Your task to perform on an android device: turn on the 12-hour format for clock Image 0: 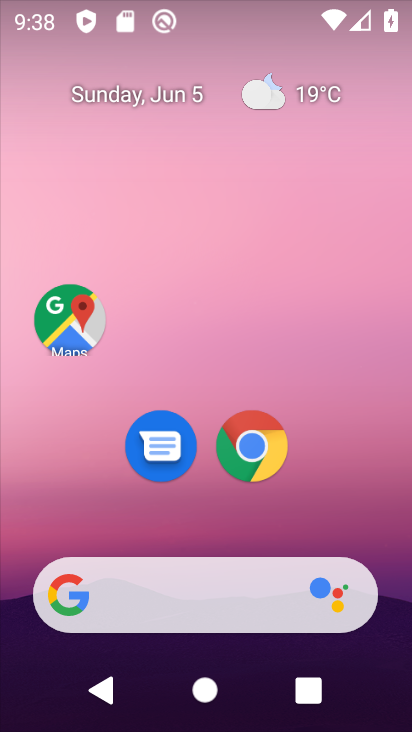
Step 0: drag from (329, 521) to (344, 0)
Your task to perform on an android device: turn on the 12-hour format for clock Image 1: 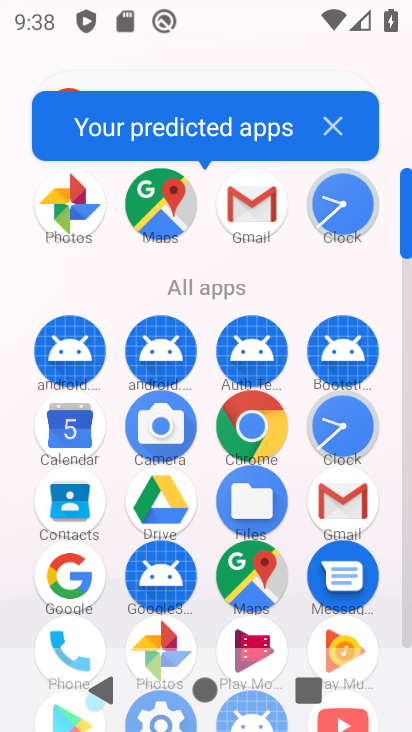
Step 1: click (344, 428)
Your task to perform on an android device: turn on the 12-hour format for clock Image 2: 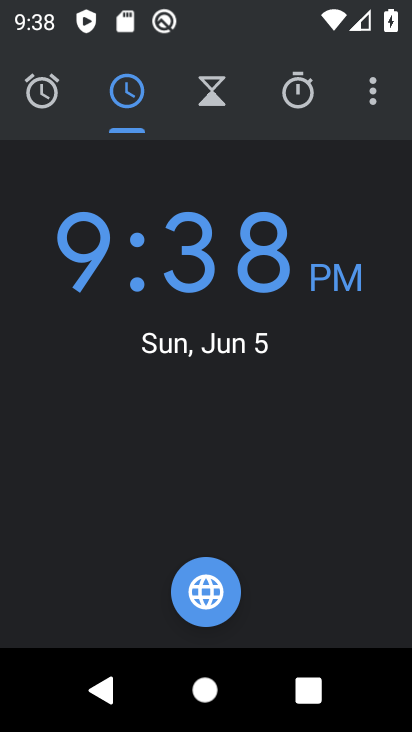
Step 2: click (375, 69)
Your task to perform on an android device: turn on the 12-hour format for clock Image 3: 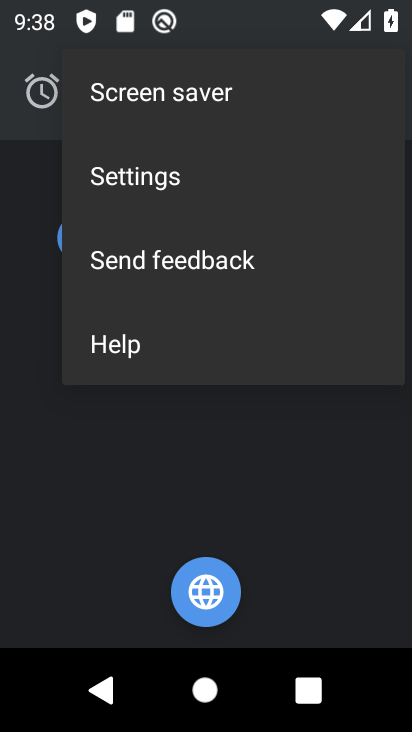
Step 3: click (156, 191)
Your task to perform on an android device: turn on the 12-hour format for clock Image 4: 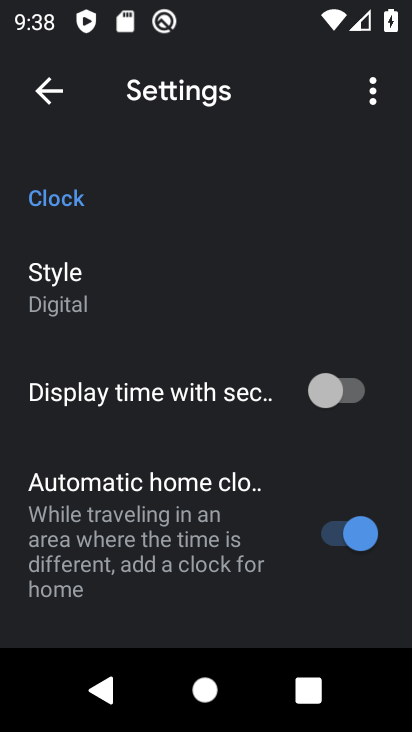
Step 4: drag from (196, 552) to (205, 59)
Your task to perform on an android device: turn on the 12-hour format for clock Image 5: 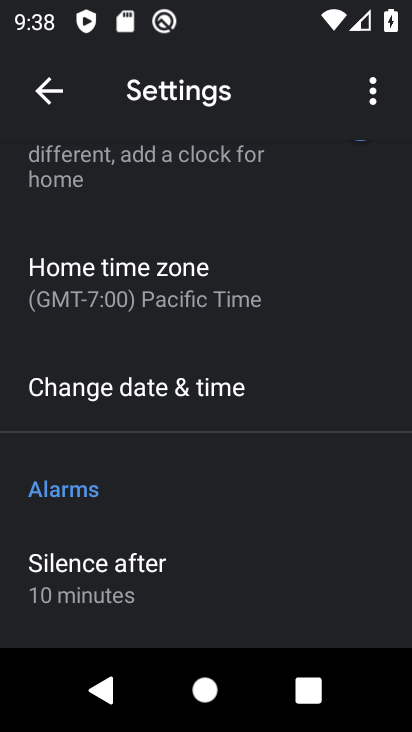
Step 5: click (245, 384)
Your task to perform on an android device: turn on the 12-hour format for clock Image 6: 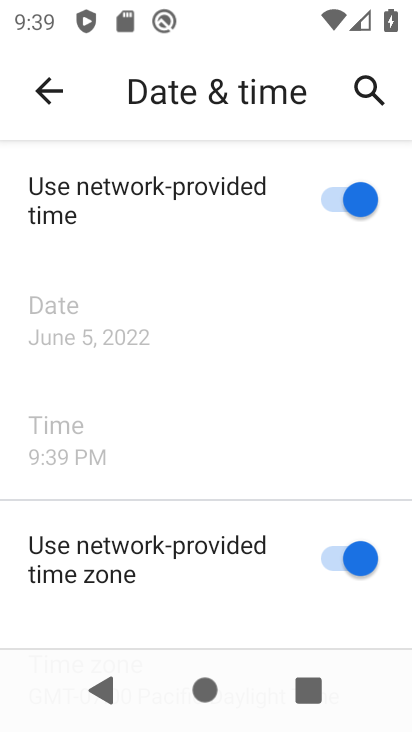
Step 6: task complete